Your task to perform on an android device: add a contact in the contacts app Image 0: 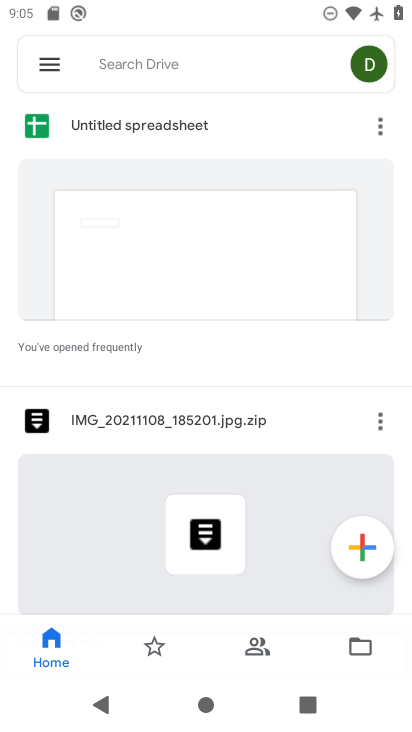
Step 0: press home button
Your task to perform on an android device: add a contact in the contacts app Image 1: 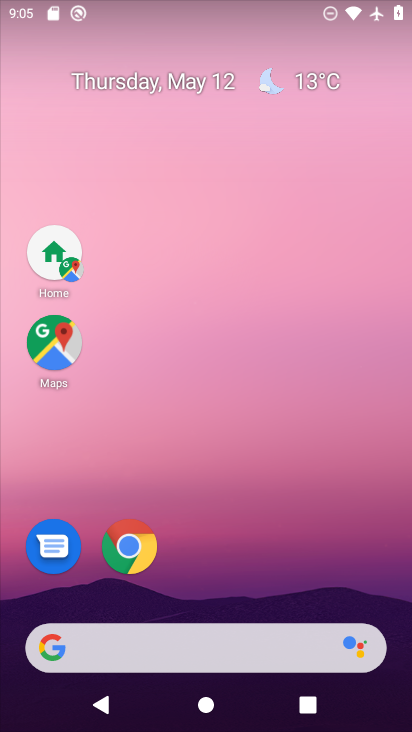
Step 1: drag from (173, 640) to (328, 29)
Your task to perform on an android device: add a contact in the contacts app Image 2: 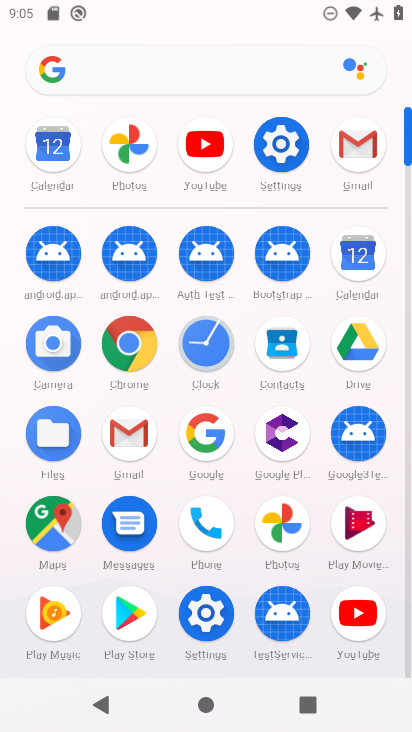
Step 2: click (288, 352)
Your task to perform on an android device: add a contact in the contacts app Image 3: 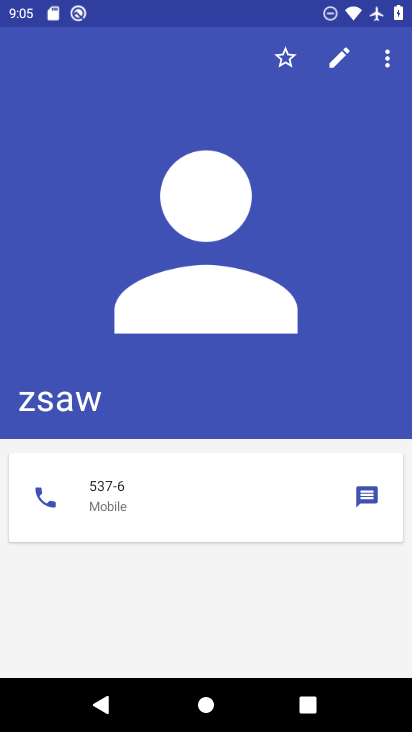
Step 3: press back button
Your task to perform on an android device: add a contact in the contacts app Image 4: 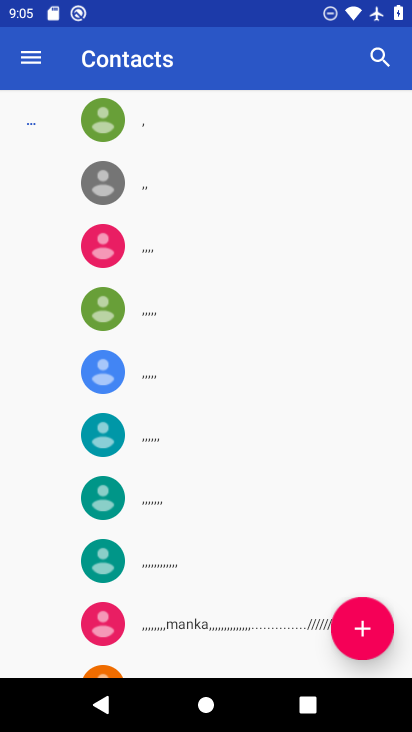
Step 4: click (354, 618)
Your task to perform on an android device: add a contact in the contacts app Image 5: 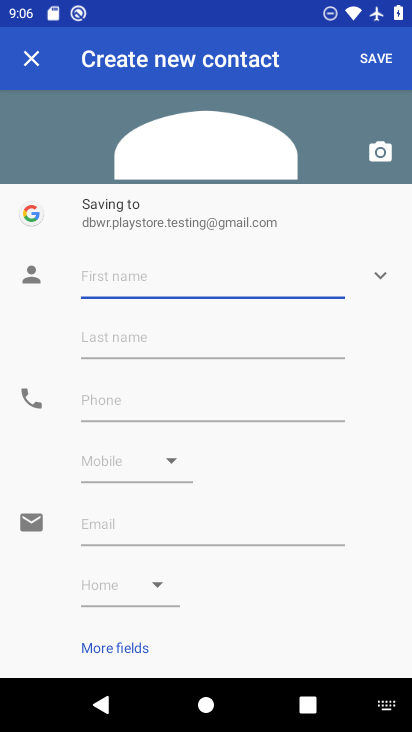
Step 5: type "bhgy"
Your task to perform on an android device: add a contact in the contacts app Image 6: 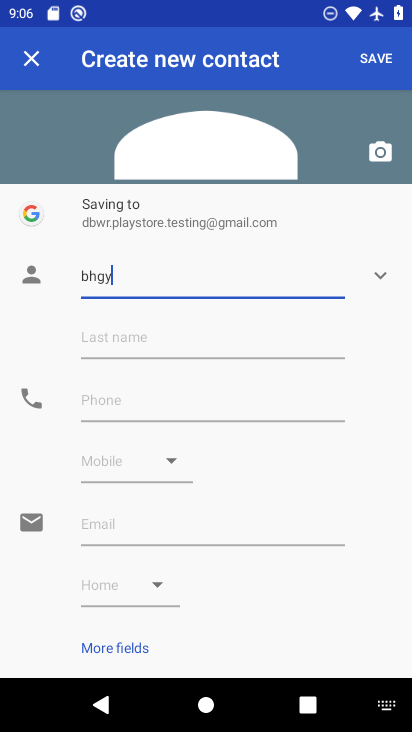
Step 6: click (113, 394)
Your task to perform on an android device: add a contact in the contacts app Image 7: 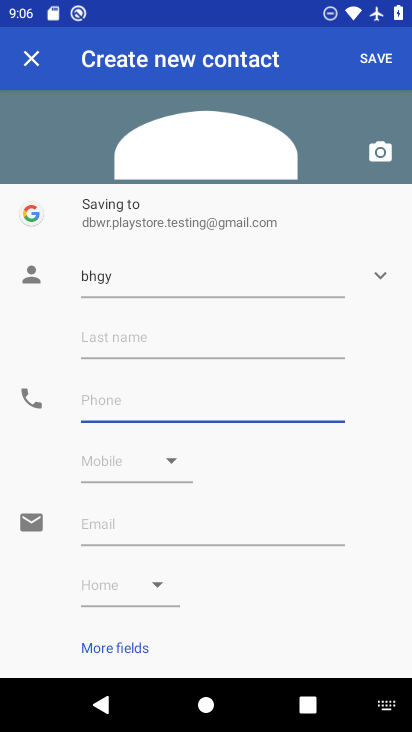
Step 7: type "6758"
Your task to perform on an android device: add a contact in the contacts app Image 8: 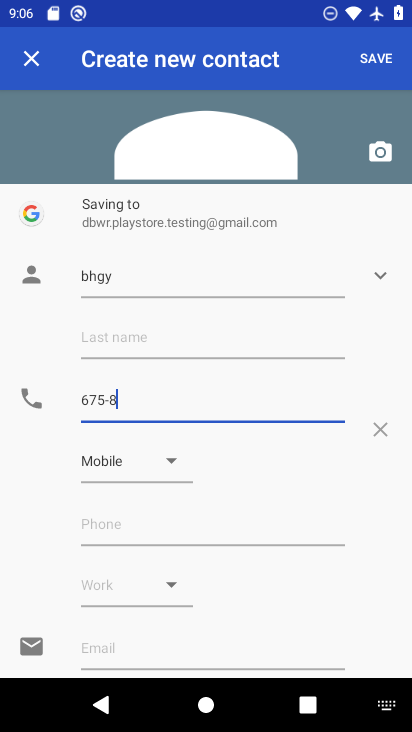
Step 8: click (385, 64)
Your task to perform on an android device: add a contact in the contacts app Image 9: 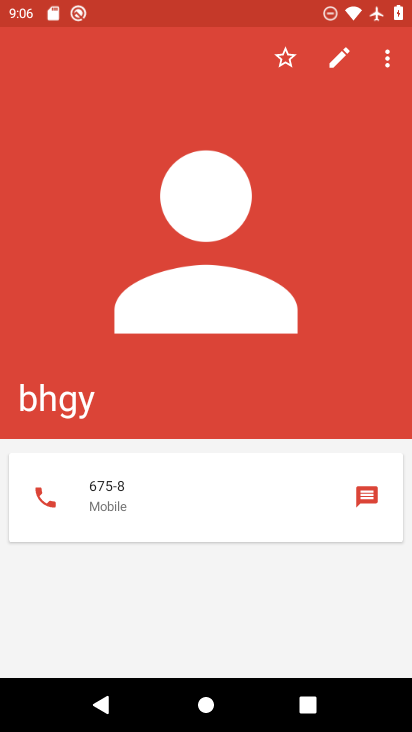
Step 9: task complete